Your task to perform on an android device: Open wifi settings Image 0: 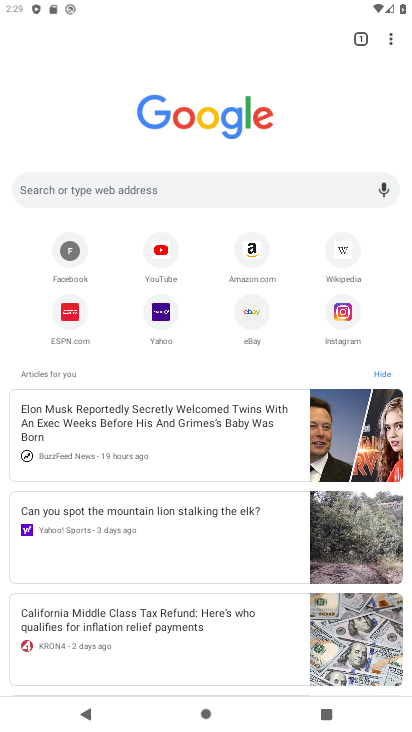
Step 0: drag from (189, 655) to (290, 157)
Your task to perform on an android device: Open wifi settings Image 1: 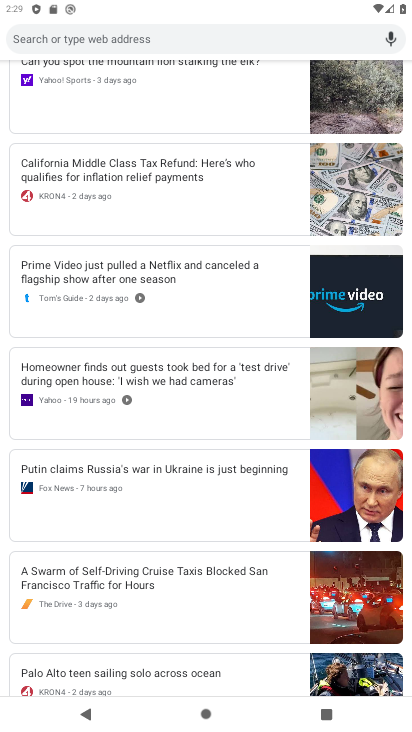
Step 1: press home button
Your task to perform on an android device: Open wifi settings Image 2: 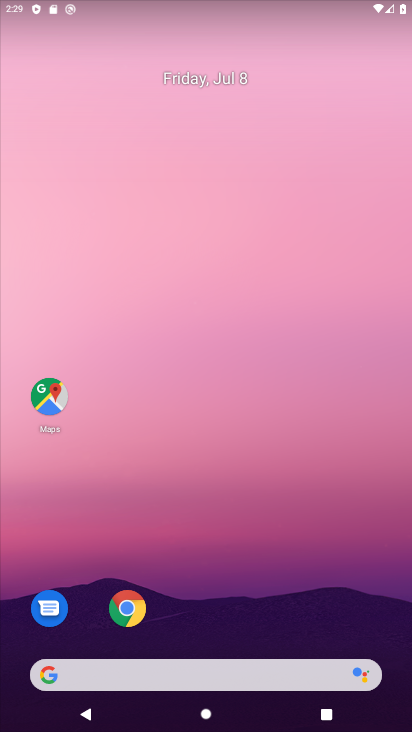
Step 2: drag from (233, 642) to (263, 97)
Your task to perform on an android device: Open wifi settings Image 3: 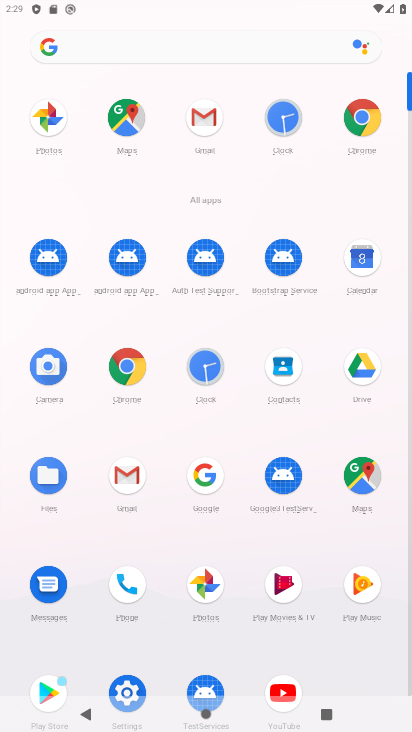
Step 3: click (124, 687)
Your task to perform on an android device: Open wifi settings Image 4: 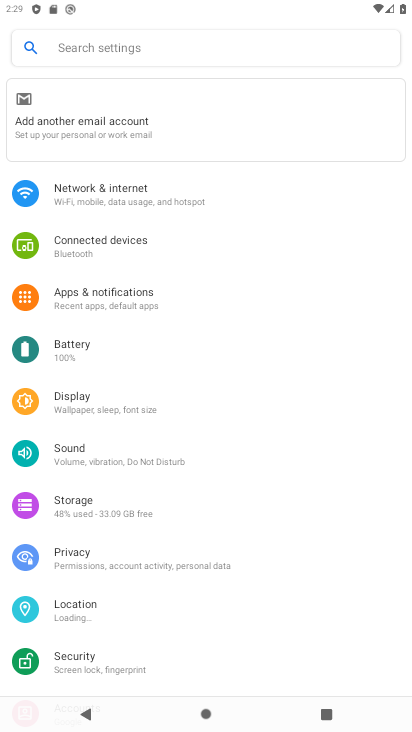
Step 4: click (169, 194)
Your task to perform on an android device: Open wifi settings Image 5: 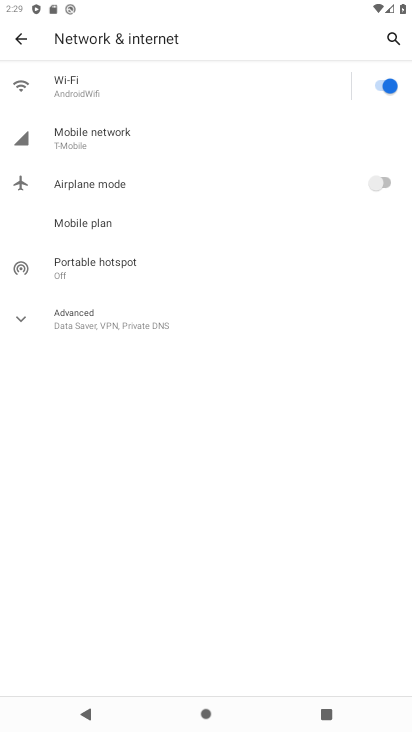
Step 5: click (121, 93)
Your task to perform on an android device: Open wifi settings Image 6: 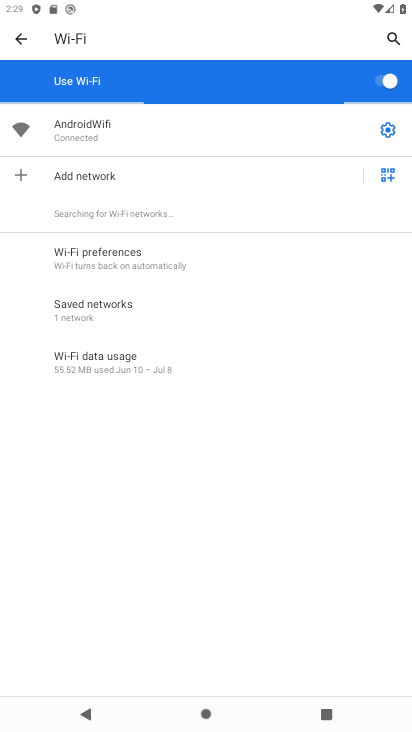
Step 6: task complete